Your task to perform on an android device: Open Chrome and go to the settings page Image 0: 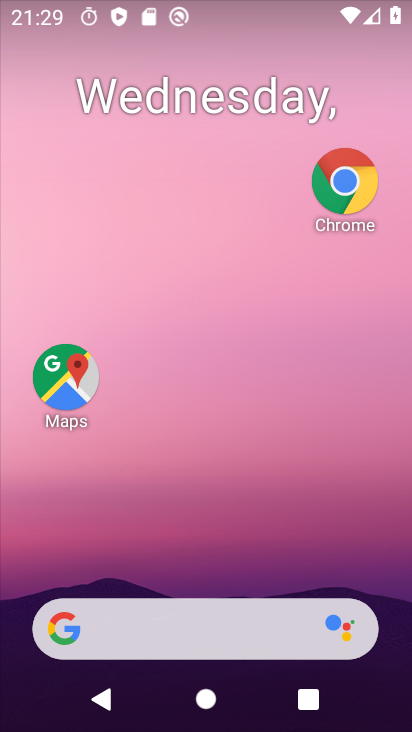
Step 0: drag from (237, 668) to (287, 237)
Your task to perform on an android device: Open Chrome and go to the settings page Image 1: 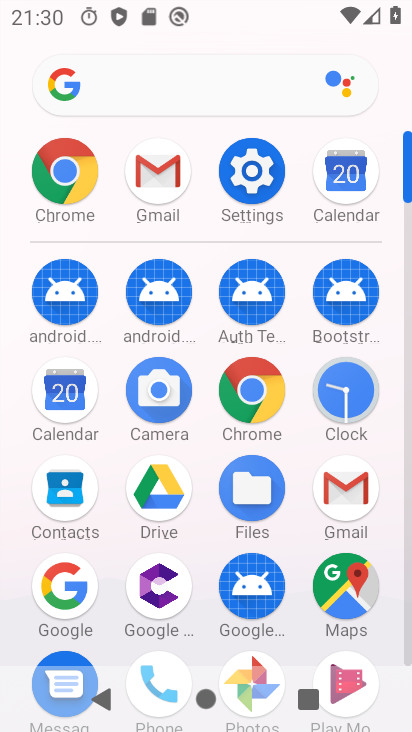
Step 1: click (240, 367)
Your task to perform on an android device: Open Chrome and go to the settings page Image 2: 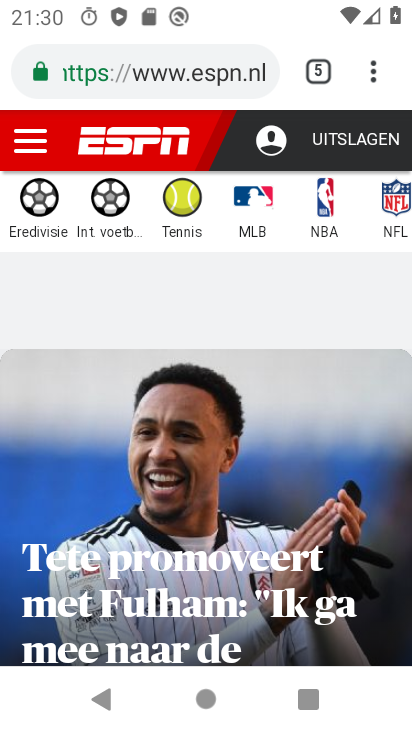
Step 2: click (375, 89)
Your task to perform on an android device: Open Chrome and go to the settings page Image 3: 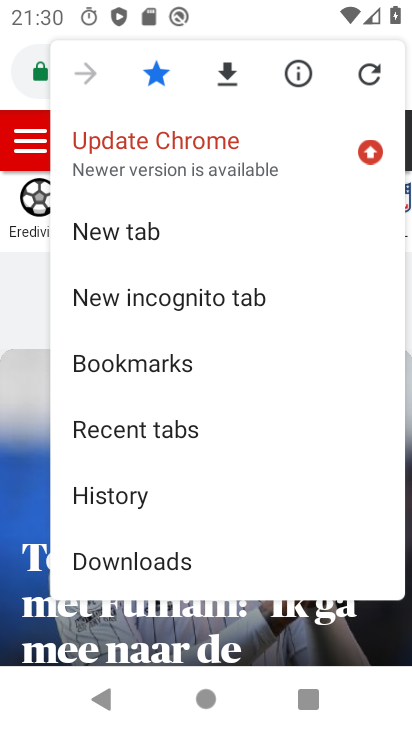
Step 3: drag from (147, 482) to (231, 346)
Your task to perform on an android device: Open Chrome and go to the settings page Image 4: 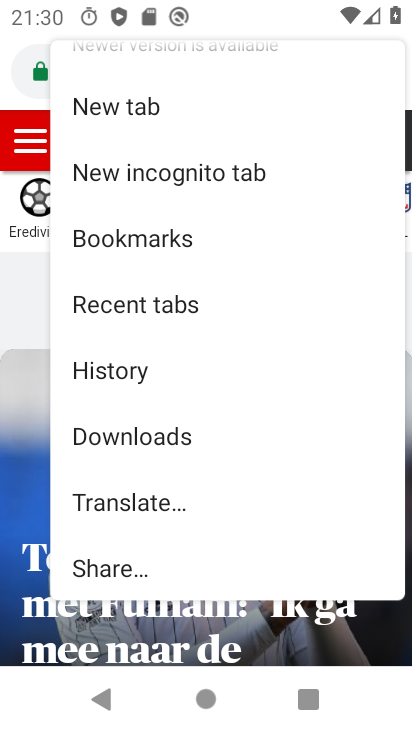
Step 4: drag from (112, 518) to (221, 357)
Your task to perform on an android device: Open Chrome and go to the settings page Image 5: 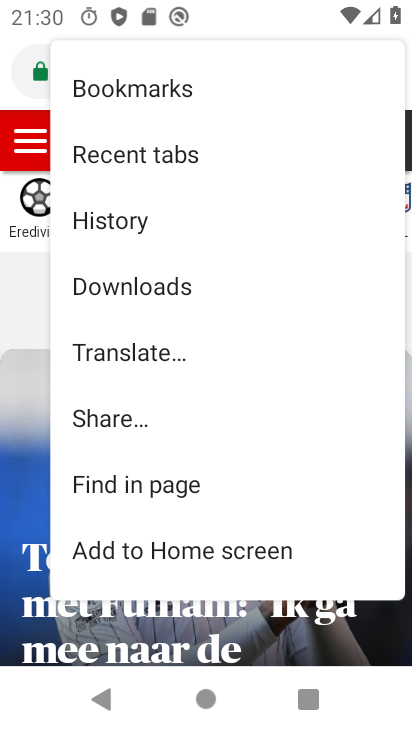
Step 5: drag from (207, 365) to (251, 234)
Your task to perform on an android device: Open Chrome and go to the settings page Image 6: 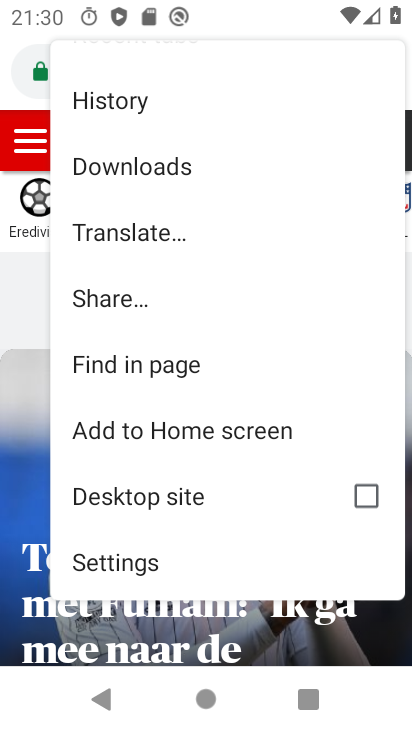
Step 6: click (139, 550)
Your task to perform on an android device: Open Chrome and go to the settings page Image 7: 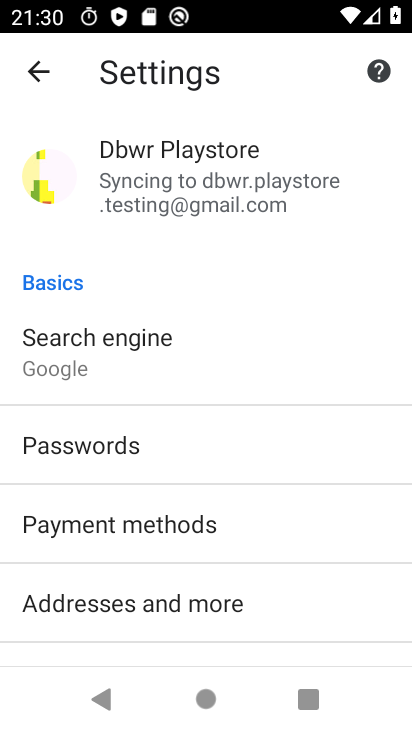
Step 7: task complete